Your task to perform on an android device: Open Google Image 0: 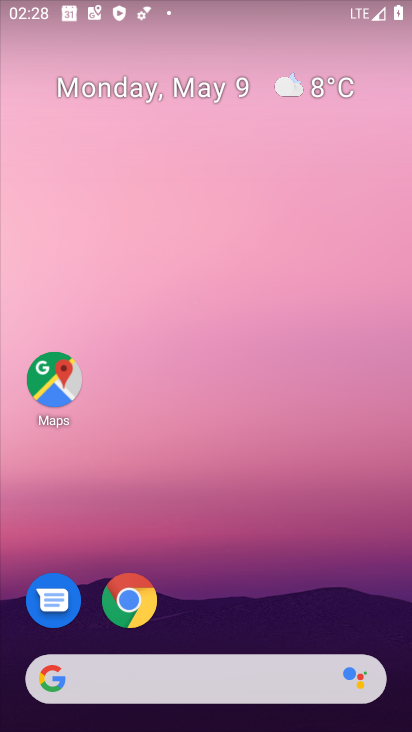
Step 0: drag from (231, 627) to (225, 100)
Your task to perform on an android device: Open Google Image 1: 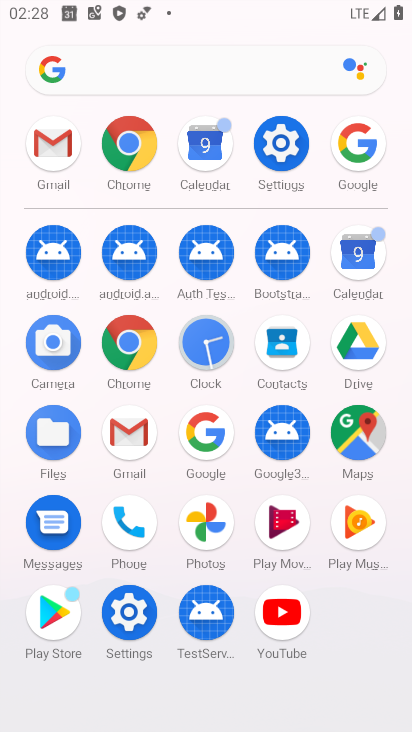
Step 1: click (209, 430)
Your task to perform on an android device: Open Google Image 2: 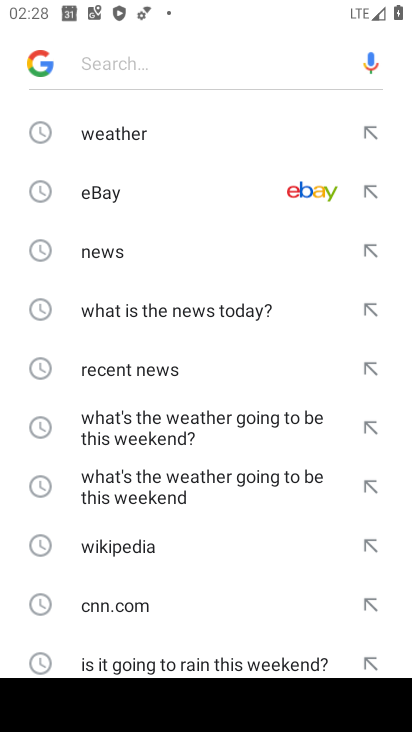
Step 2: press back button
Your task to perform on an android device: Open Google Image 3: 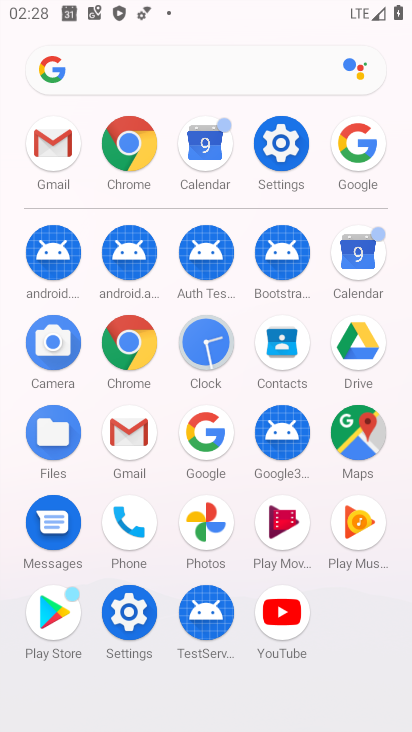
Step 3: click (202, 424)
Your task to perform on an android device: Open Google Image 4: 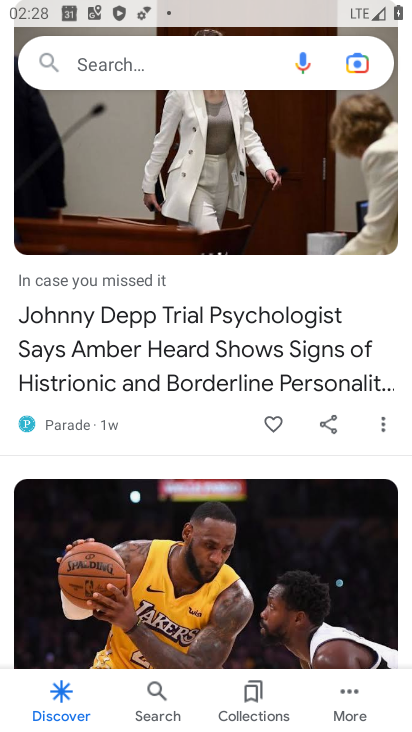
Step 4: drag from (211, 184) to (225, 617)
Your task to perform on an android device: Open Google Image 5: 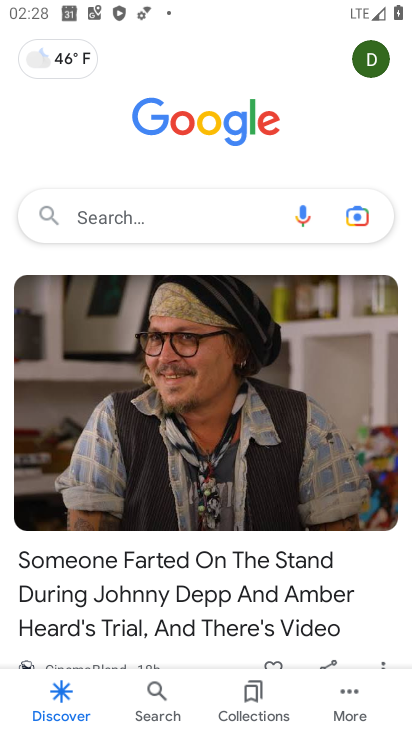
Step 5: click (227, 219)
Your task to perform on an android device: Open Google Image 6: 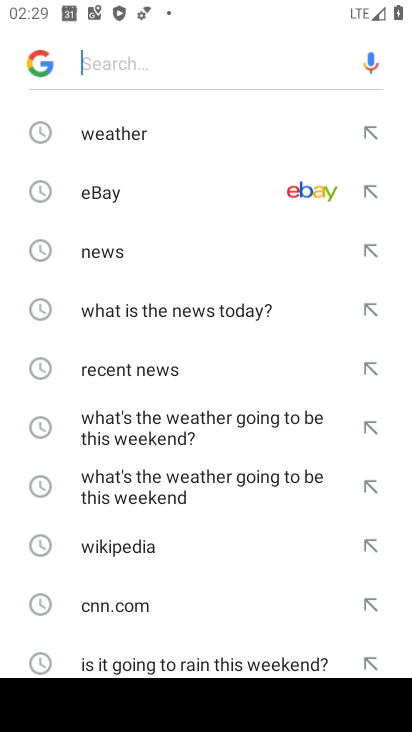
Step 6: task complete